Your task to perform on an android device: visit the assistant section in the google photos Image 0: 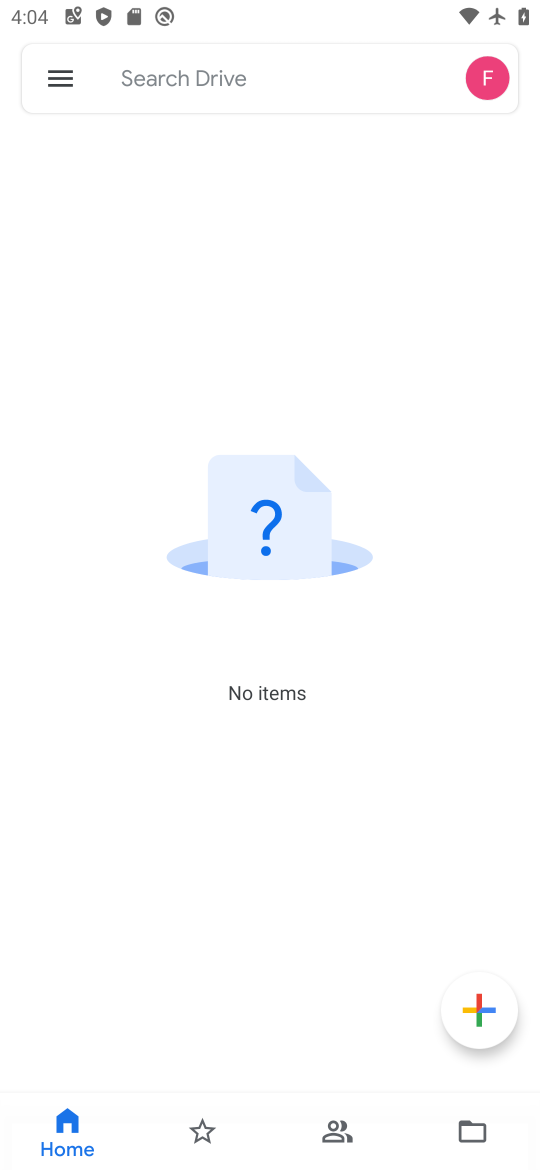
Step 0: press home button
Your task to perform on an android device: visit the assistant section in the google photos Image 1: 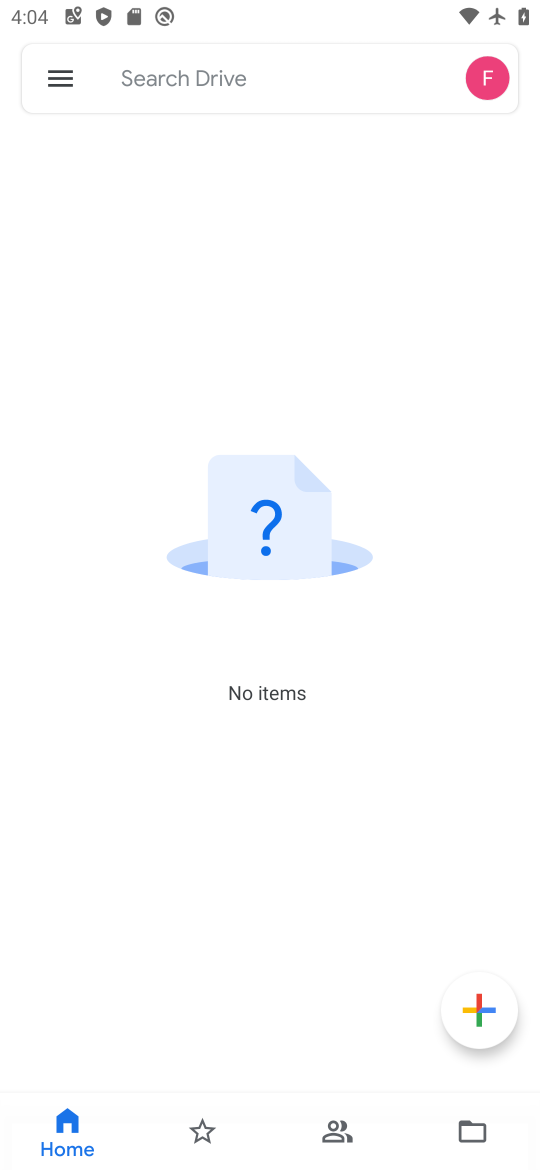
Step 1: press home button
Your task to perform on an android device: visit the assistant section in the google photos Image 2: 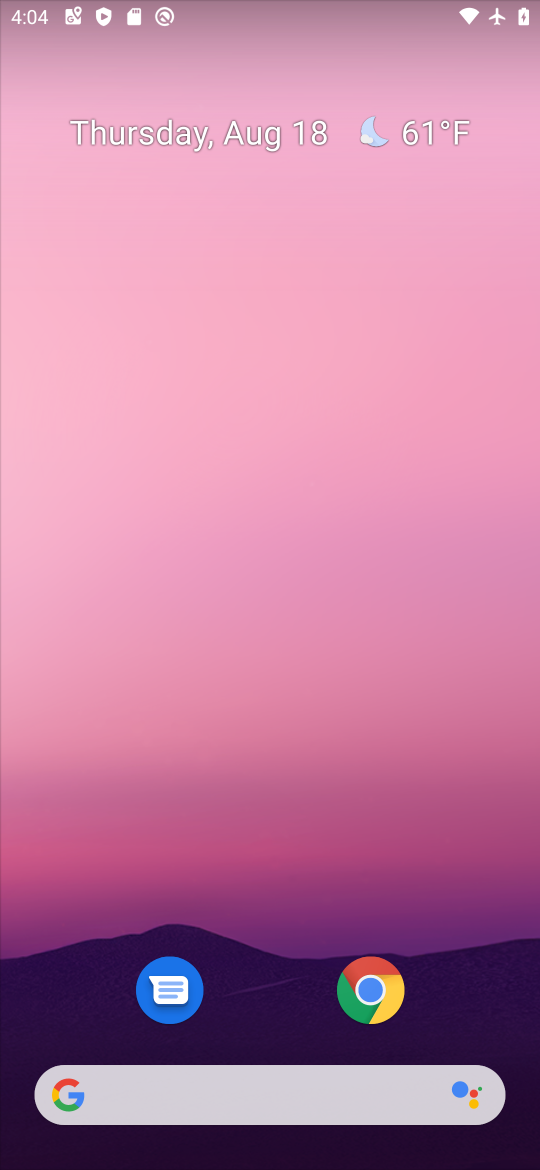
Step 2: drag from (242, 526) to (226, 39)
Your task to perform on an android device: visit the assistant section in the google photos Image 3: 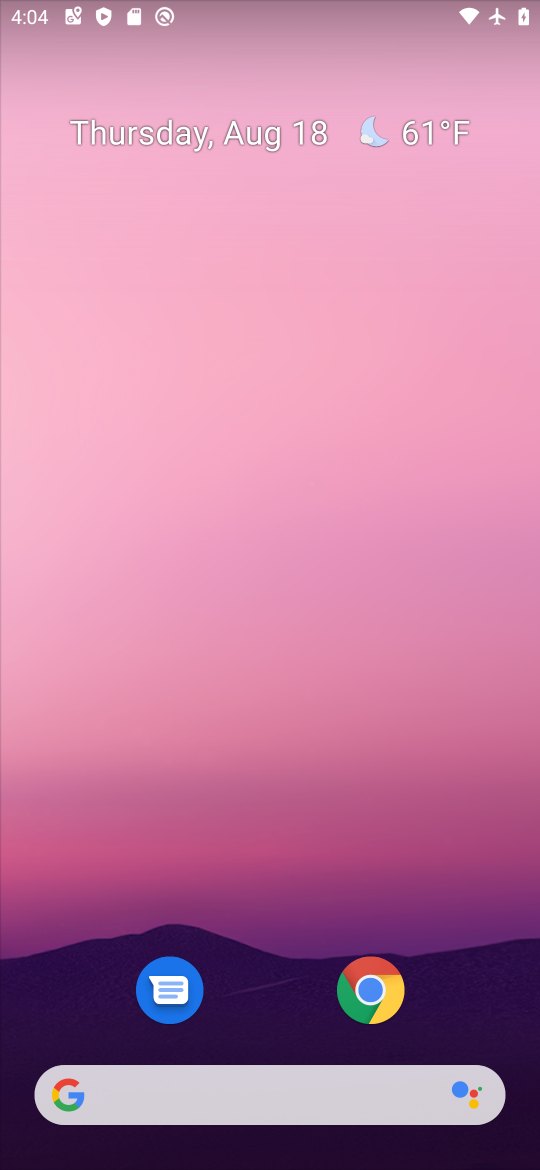
Step 3: drag from (295, 977) to (317, 157)
Your task to perform on an android device: visit the assistant section in the google photos Image 4: 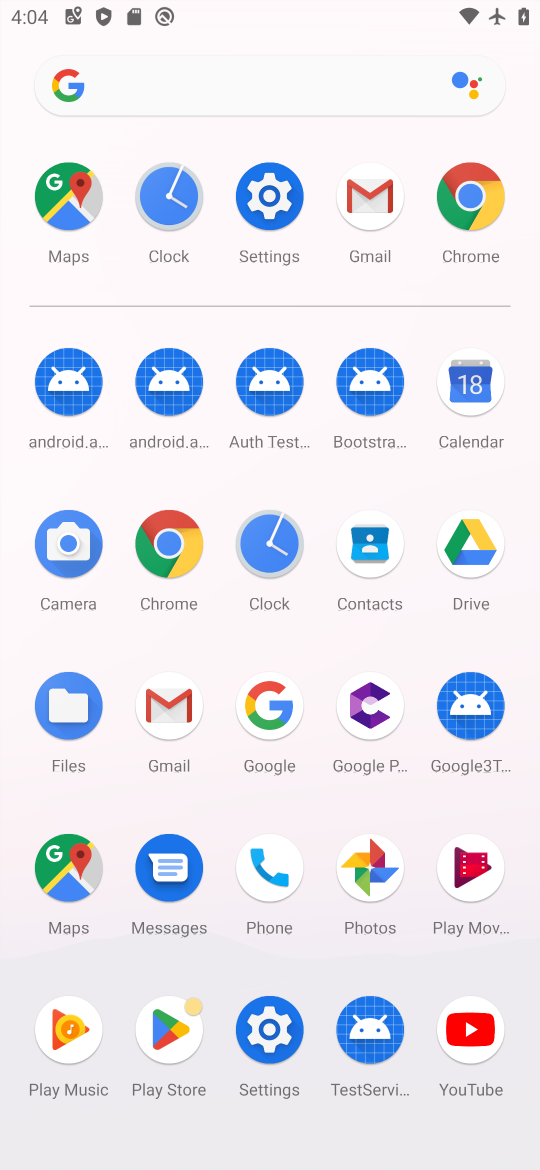
Step 4: click (378, 881)
Your task to perform on an android device: visit the assistant section in the google photos Image 5: 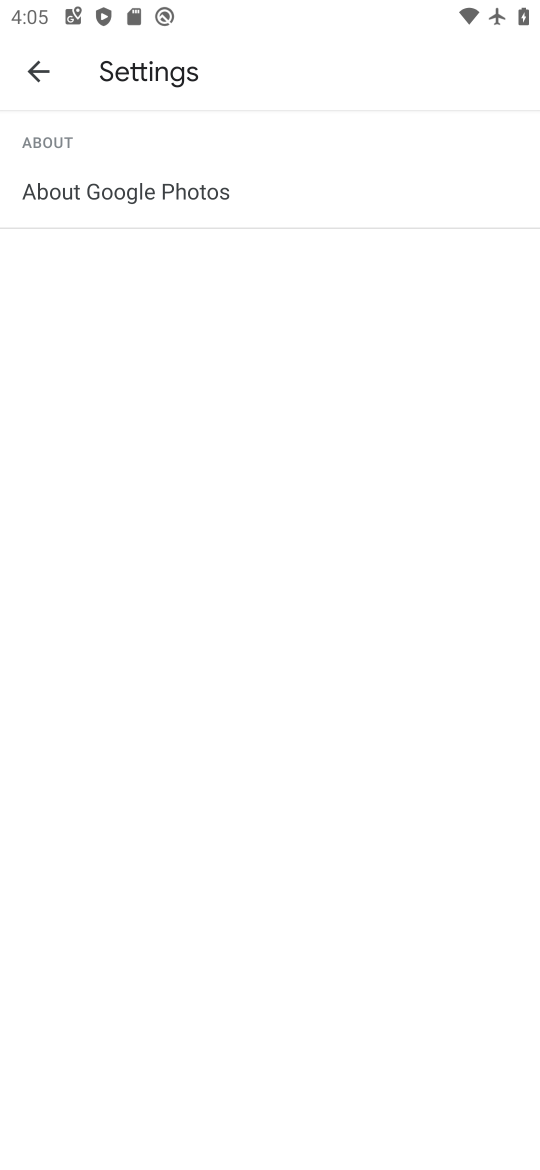
Step 5: click (38, 65)
Your task to perform on an android device: visit the assistant section in the google photos Image 6: 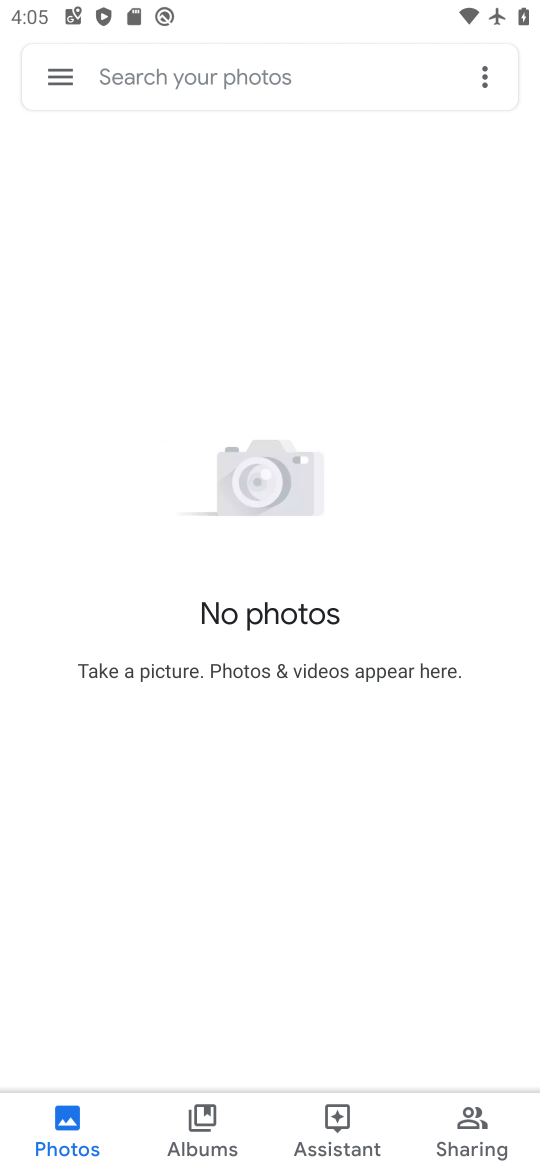
Step 6: click (331, 1137)
Your task to perform on an android device: visit the assistant section in the google photos Image 7: 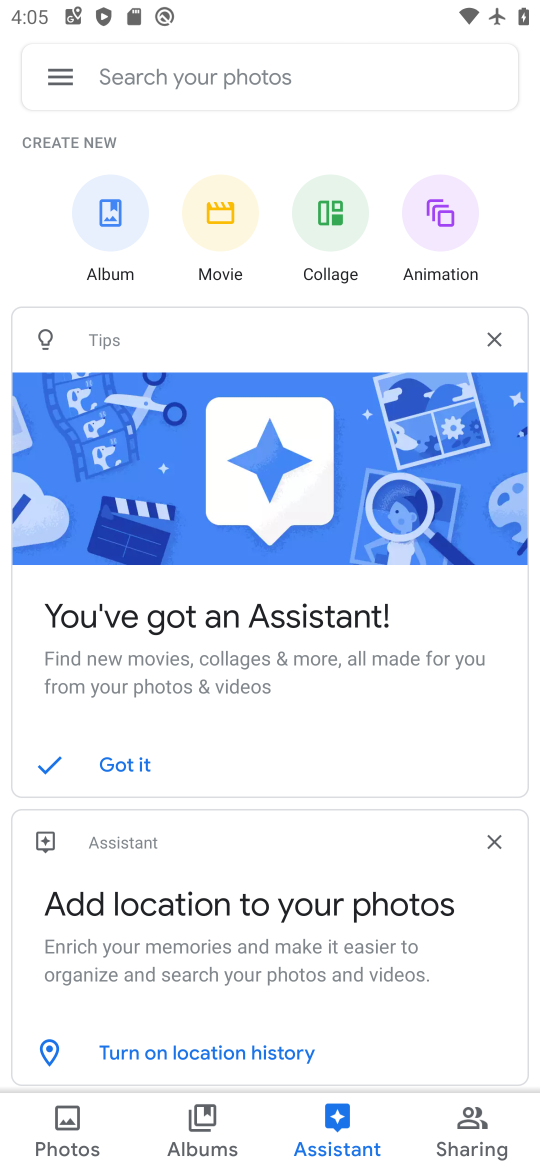
Step 7: task complete